Your task to perform on an android device: Open the calendar app, open the side menu, and click the "Day" option Image 0: 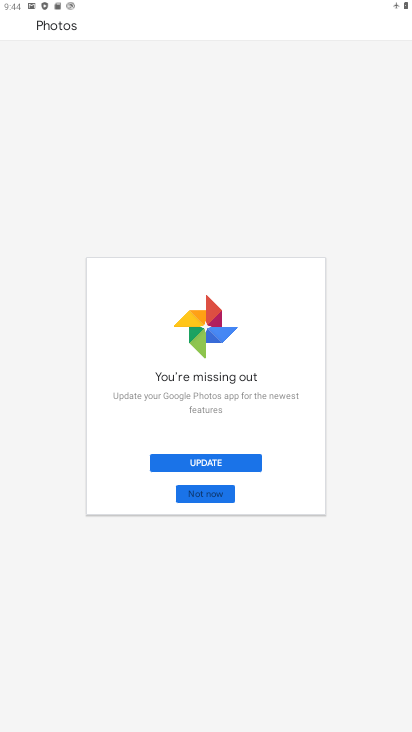
Step 0: press home button
Your task to perform on an android device: Open the calendar app, open the side menu, and click the "Day" option Image 1: 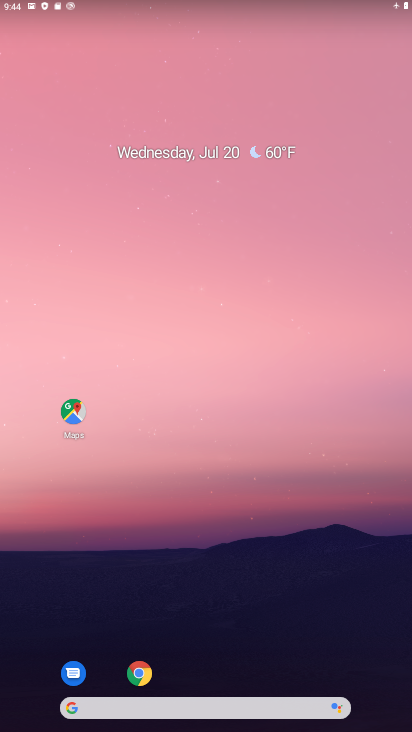
Step 1: drag from (253, 679) to (240, 25)
Your task to perform on an android device: Open the calendar app, open the side menu, and click the "Day" option Image 2: 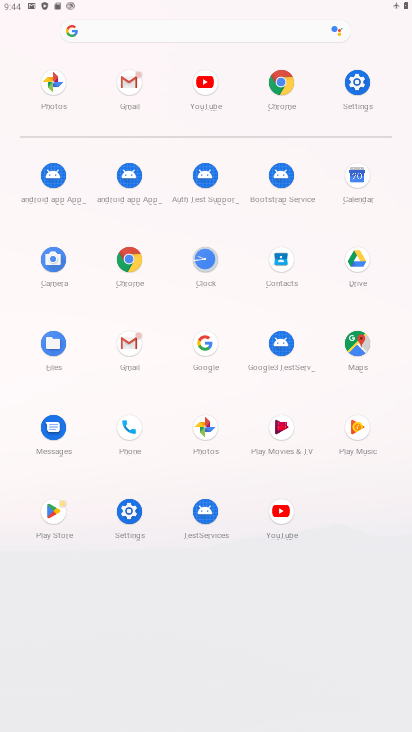
Step 2: click (363, 177)
Your task to perform on an android device: Open the calendar app, open the side menu, and click the "Day" option Image 3: 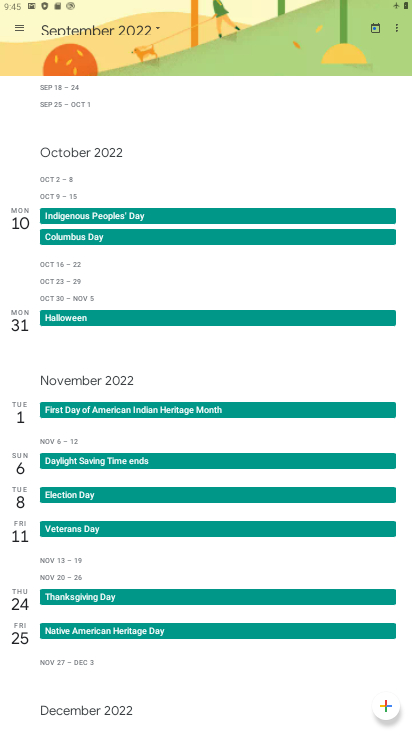
Step 3: click (20, 28)
Your task to perform on an android device: Open the calendar app, open the side menu, and click the "Day" option Image 4: 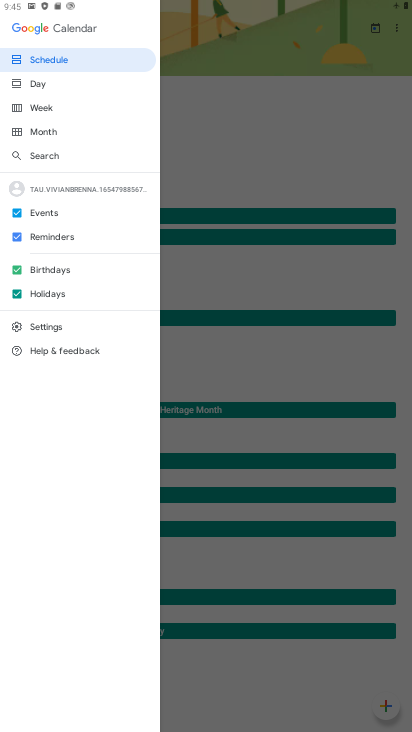
Step 4: click (34, 87)
Your task to perform on an android device: Open the calendar app, open the side menu, and click the "Day" option Image 5: 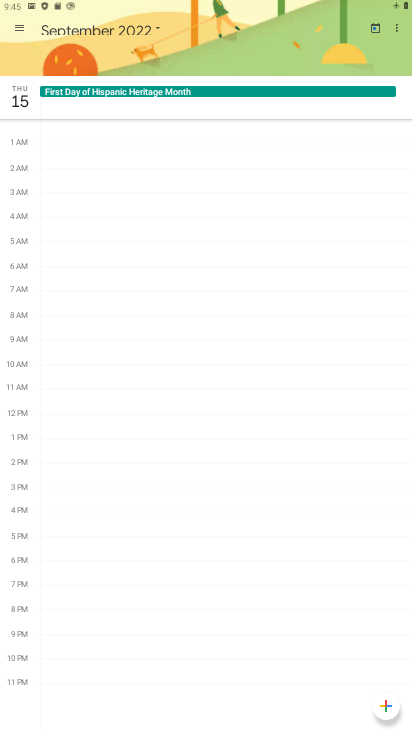
Step 5: task complete